Your task to perform on an android device: empty trash in google photos Image 0: 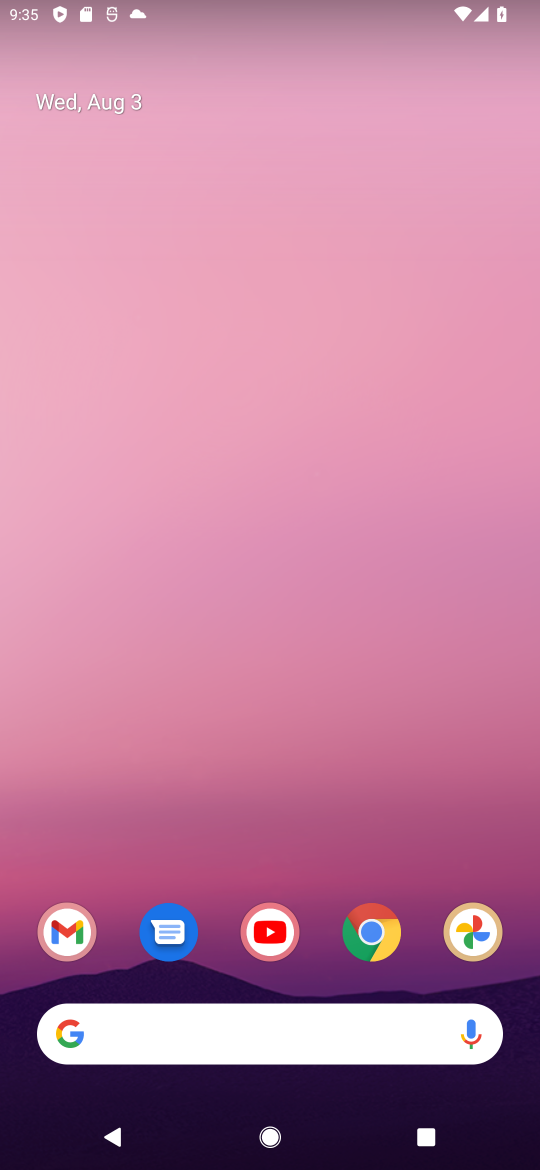
Step 0: click (475, 934)
Your task to perform on an android device: empty trash in google photos Image 1: 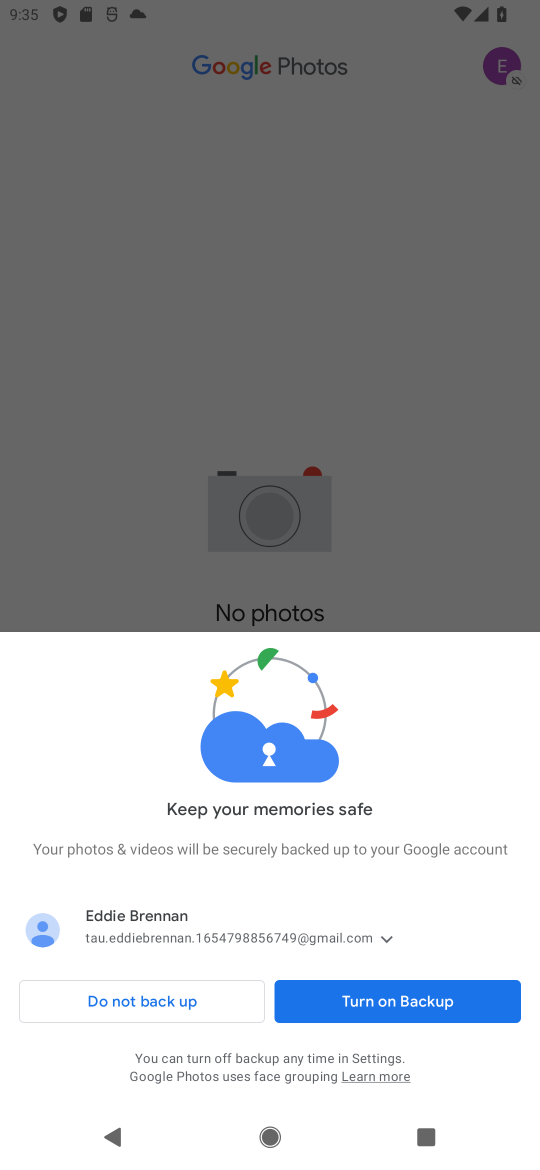
Step 1: click (457, 1003)
Your task to perform on an android device: empty trash in google photos Image 2: 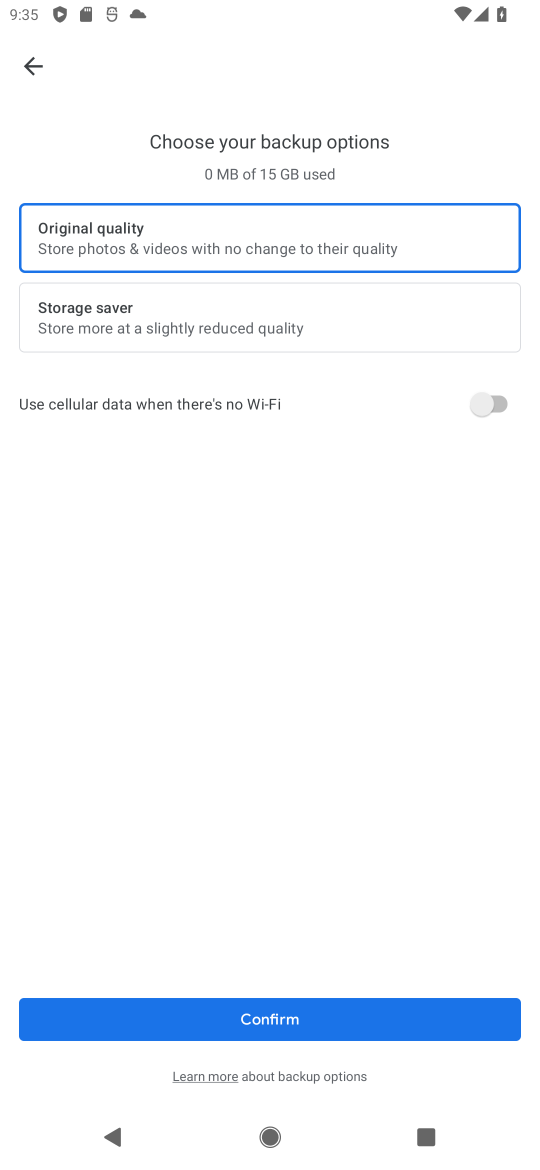
Step 2: click (369, 1010)
Your task to perform on an android device: empty trash in google photos Image 3: 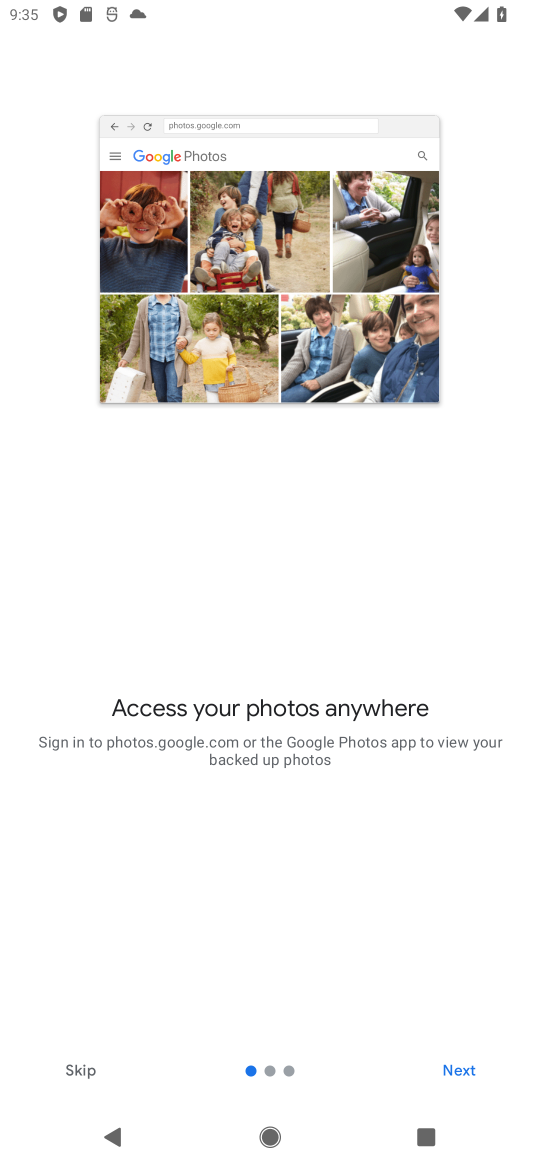
Step 3: click (87, 1074)
Your task to perform on an android device: empty trash in google photos Image 4: 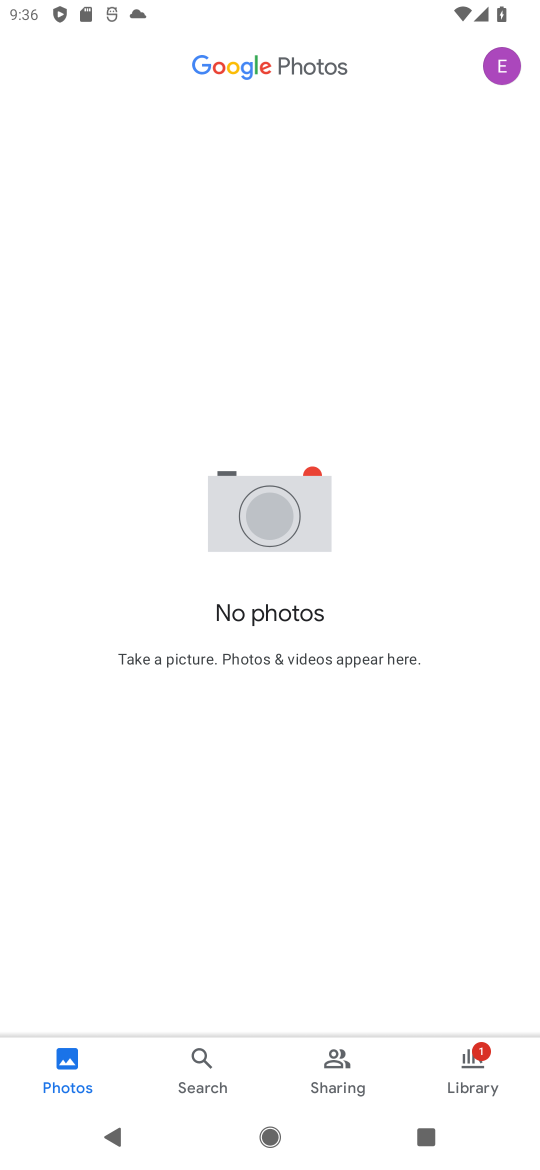
Step 4: click (509, 59)
Your task to perform on an android device: empty trash in google photos Image 5: 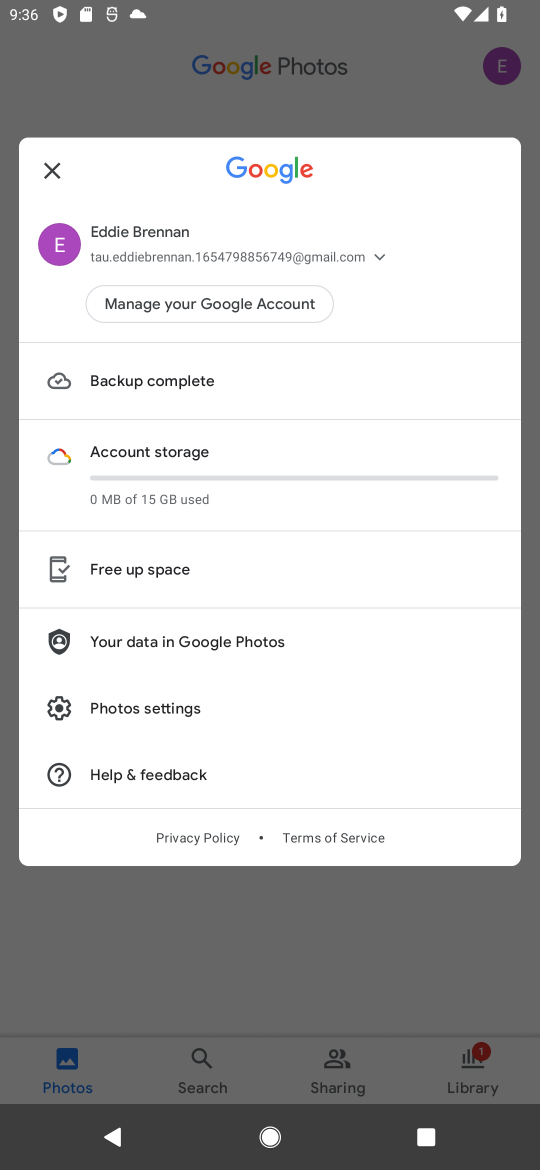
Step 5: click (261, 582)
Your task to perform on an android device: empty trash in google photos Image 6: 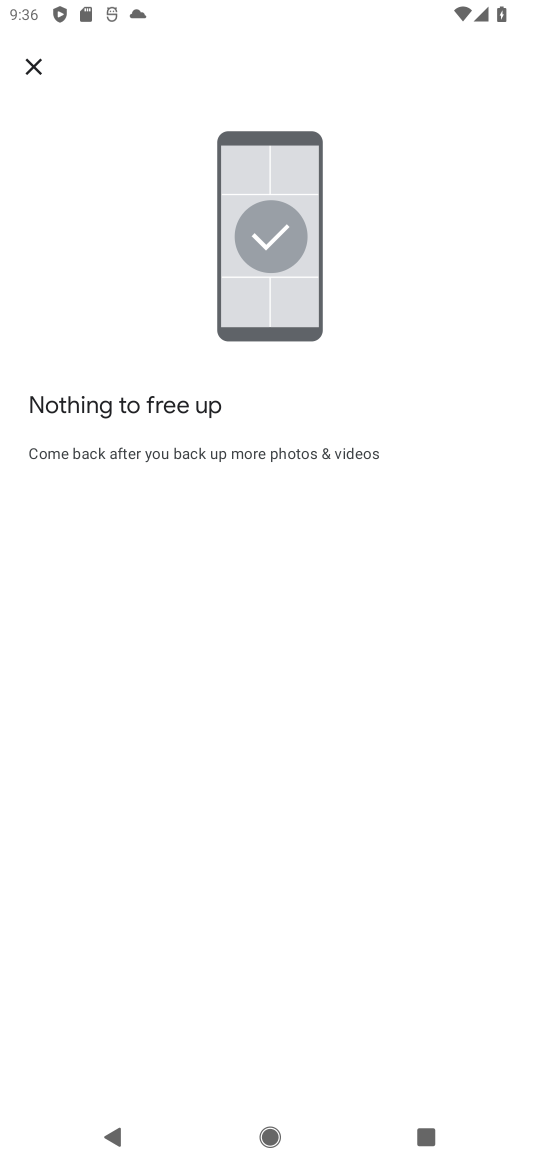
Step 6: task complete